Your task to perform on an android device: Go to Google maps Image 0: 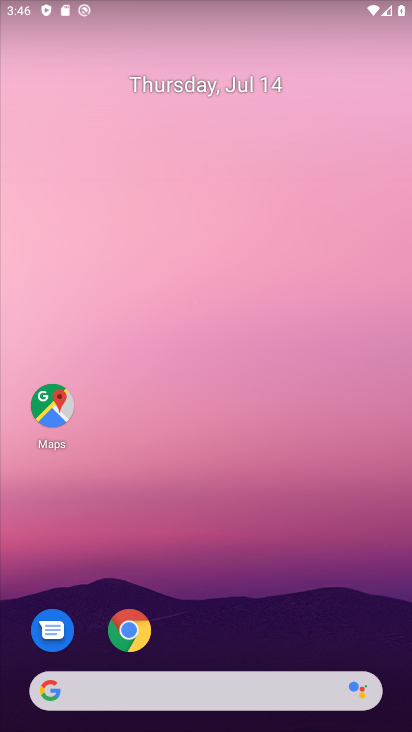
Step 0: drag from (307, 679) to (306, 66)
Your task to perform on an android device: Go to Google maps Image 1: 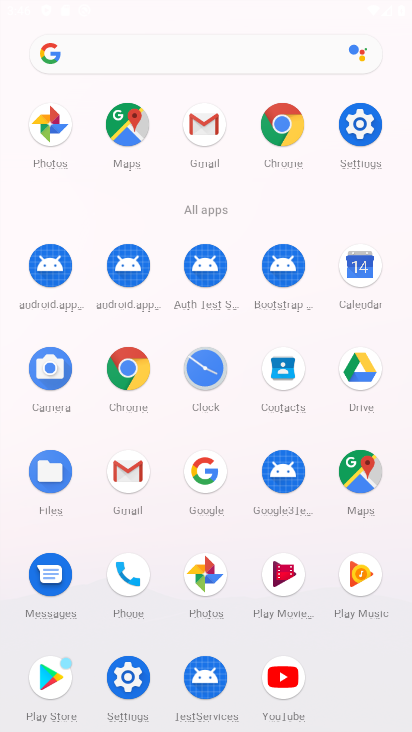
Step 1: click (359, 467)
Your task to perform on an android device: Go to Google maps Image 2: 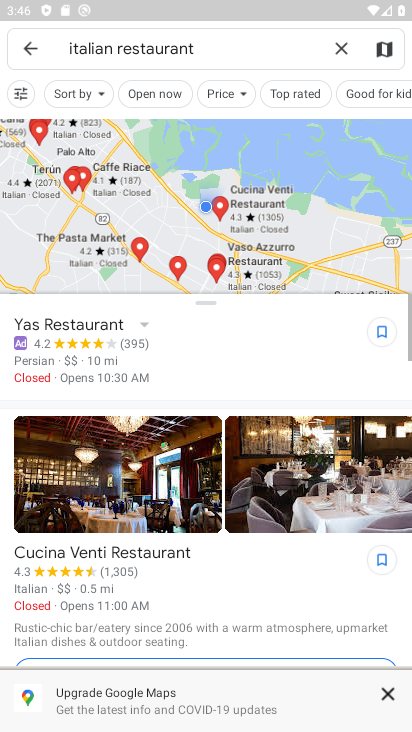
Step 2: task complete